Your task to perform on an android device: star an email in the gmail app Image 0: 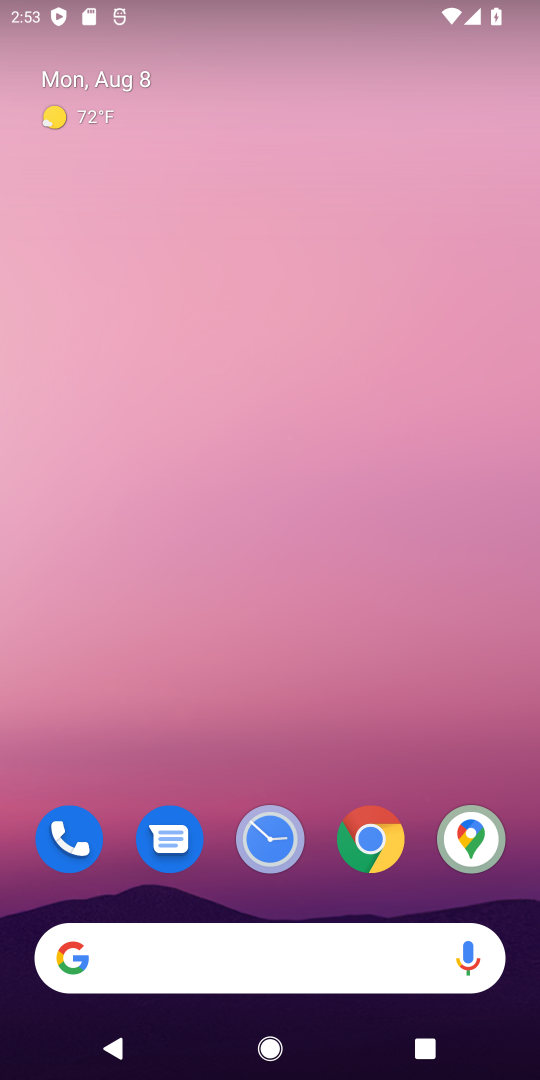
Step 0: drag from (416, 664) to (423, 182)
Your task to perform on an android device: star an email in the gmail app Image 1: 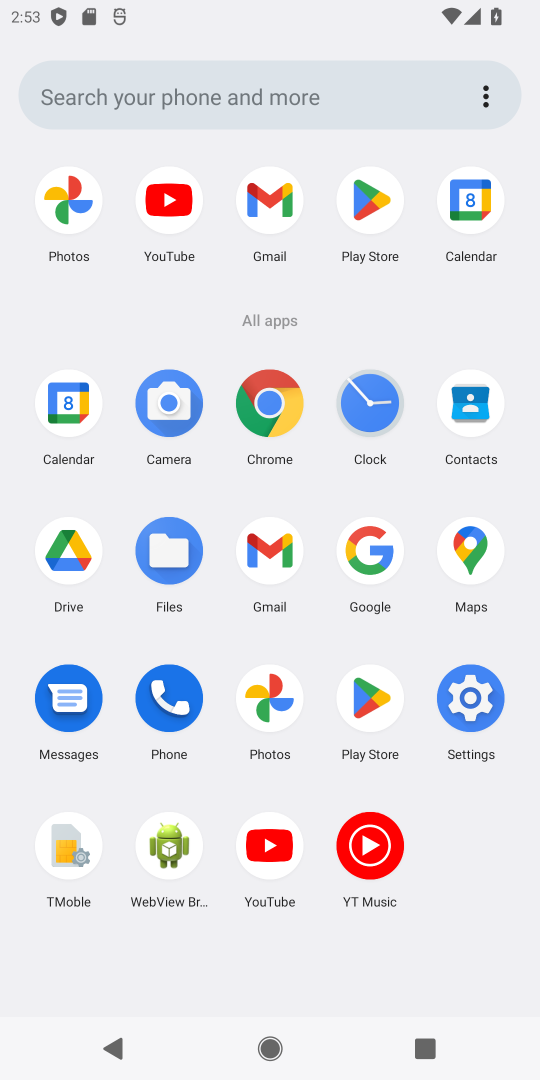
Step 1: click (261, 552)
Your task to perform on an android device: star an email in the gmail app Image 2: 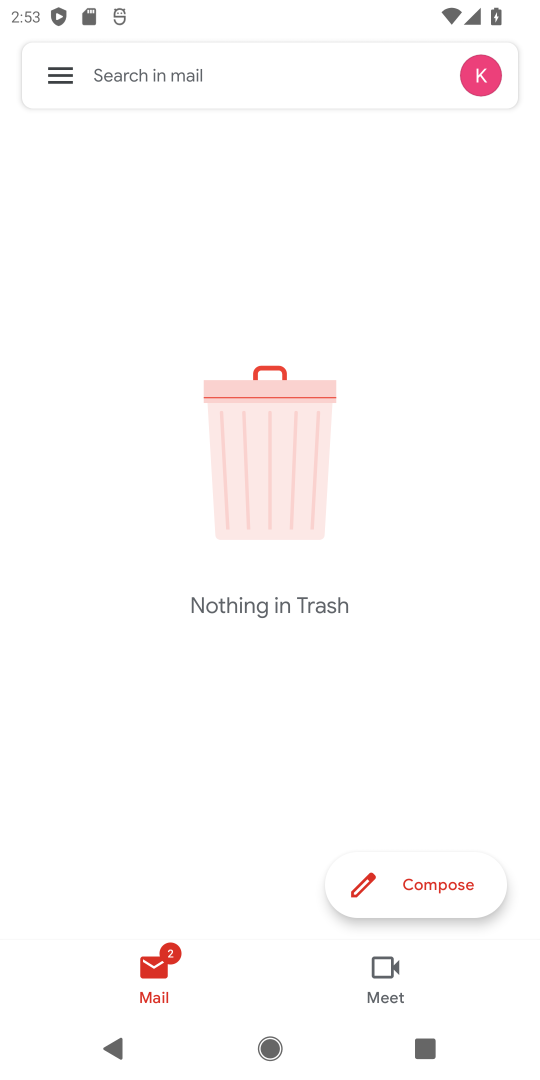
Step 2: click (62, 70)
Your task to perform on an android device: star an email in the gmail app Image 3: 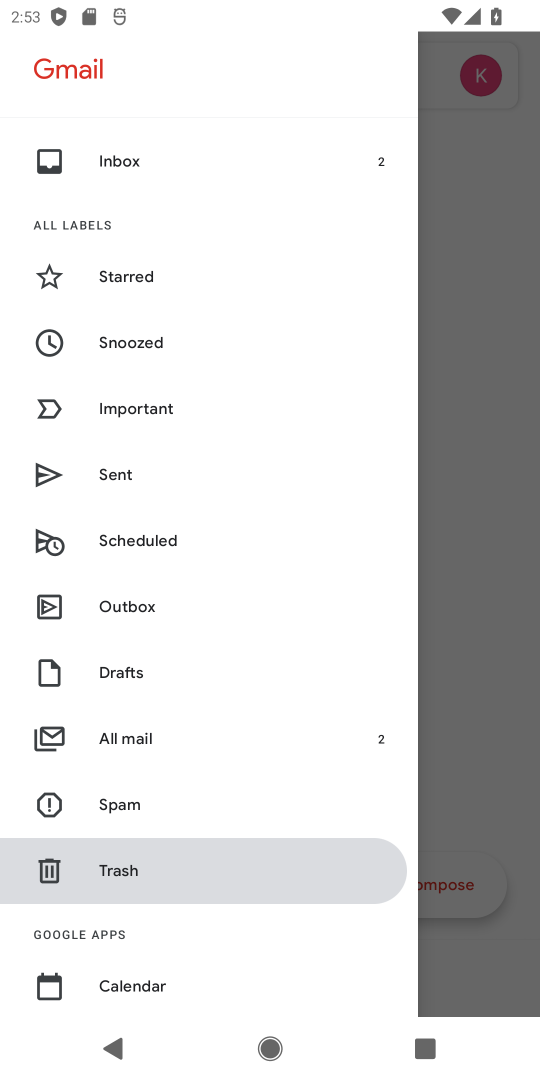
Step 3: drag from (270, 615) to (303, 373)
Your task to perform on an android device: star an email in the gmail app Image 4: 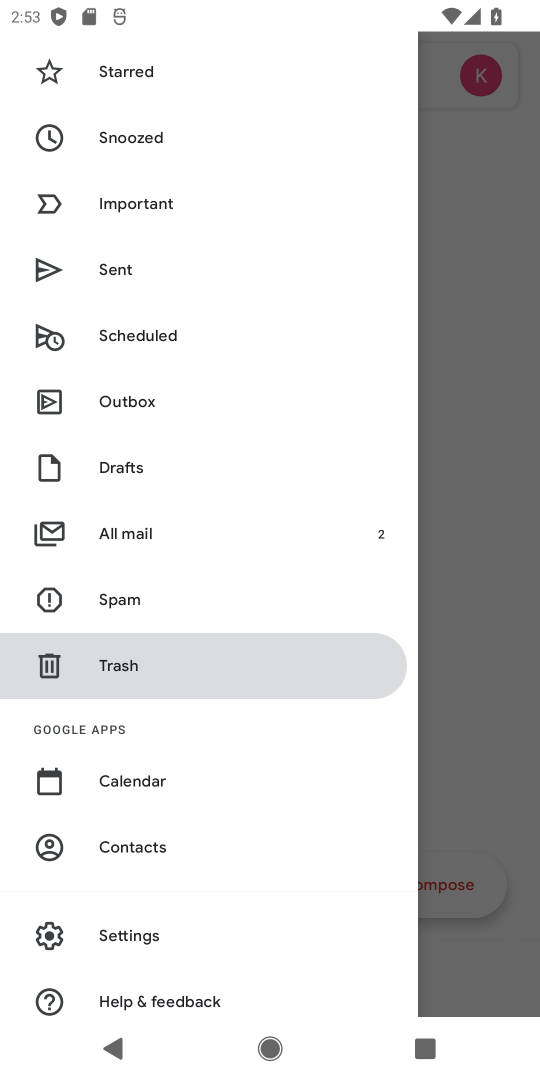
Step 4: click (178, 534)
Your task to perform on an android device: star an email in the gmail app Image 5: 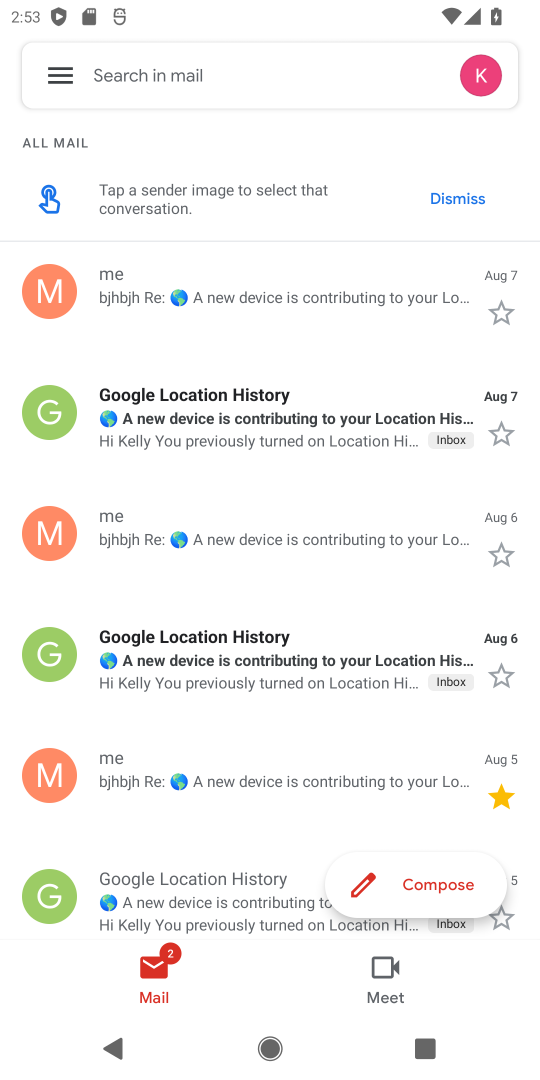
Step 5: click (500, 316)
Your task to perform on an android device: star an email in the gmail app Image 6: 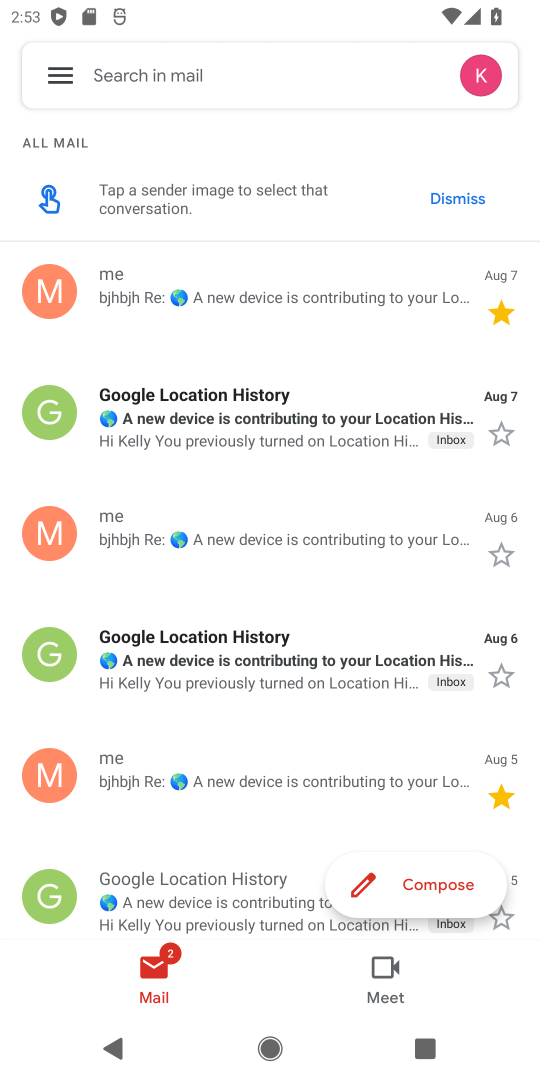
Step 6: task complete